Your task to perform on an android device: turn off data saver in the chrome app Image 0: 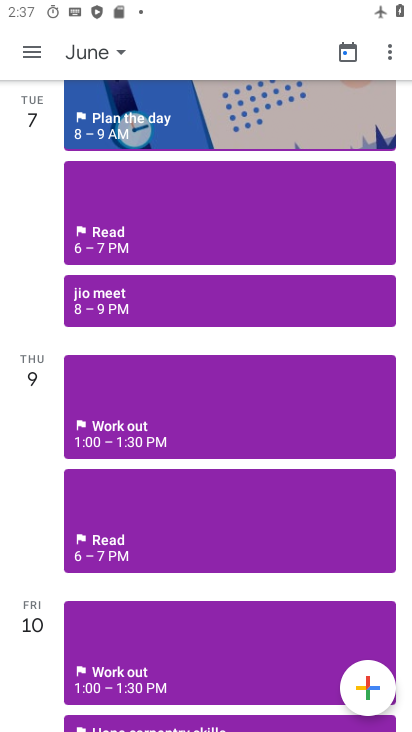
Step 0: press home button
Your task to perform on an android device: turn off data saver in the chrome app Image 1: 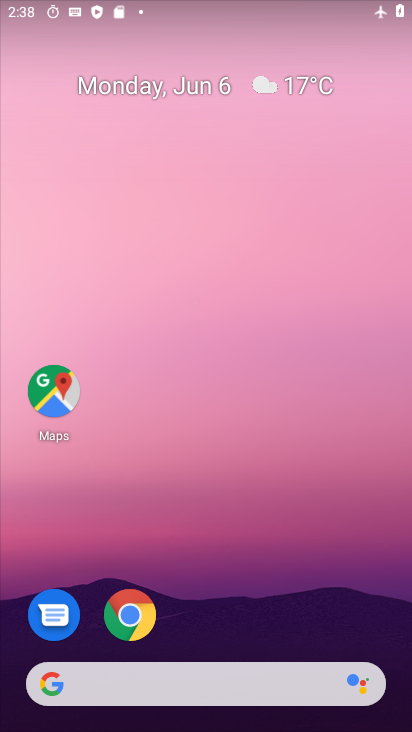
Step 1: drag from (188, 631) to (217, 142)
Your task to perform on an android device: turn off data saver in the chrome app Image 2: 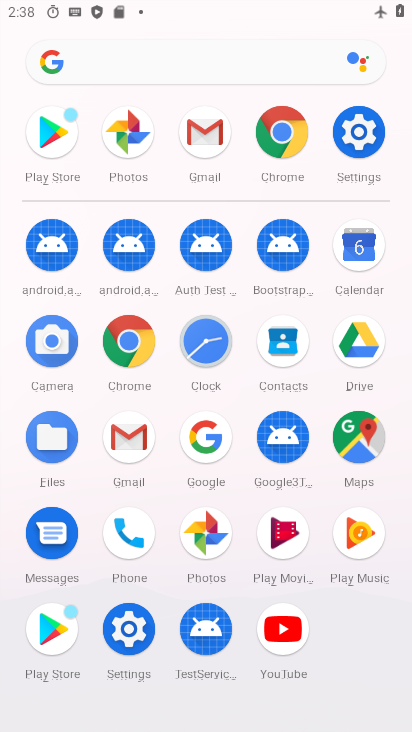
Step 2: click (123, 355)
Your task to perform on an android device: turn off data saver in the chrome app Image 3: 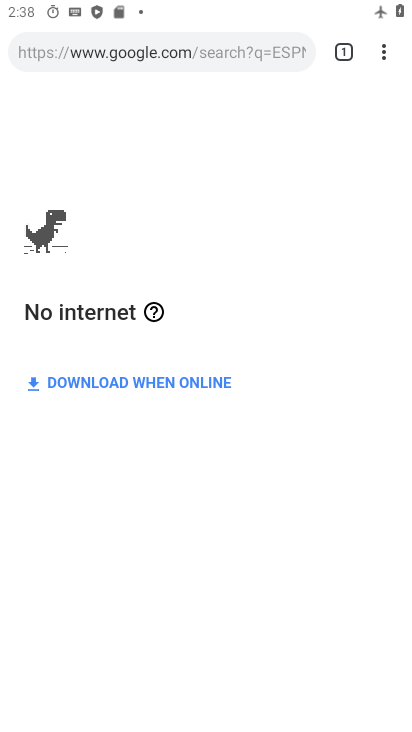
Step 3: click (383, 56)
Your task to perform on an android device: turn off data saver in the chrome app Image 4: 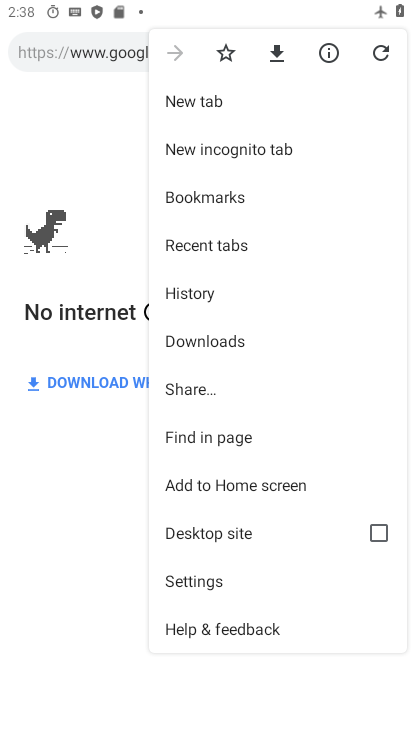
Step 4: click (209, 579)
Your task to perform on an android device: turn off data saver in the chrome app Image 5: 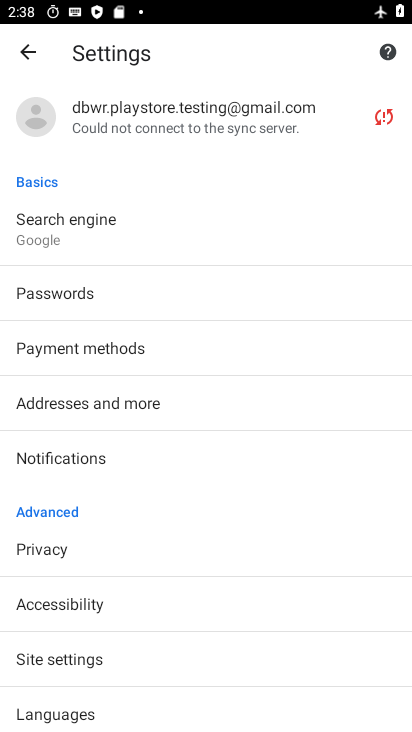
Step 5: drag from (121, 653) to (157, 405)
Your task to perform on an android device: turn off data saver in the chrome app Image 6: 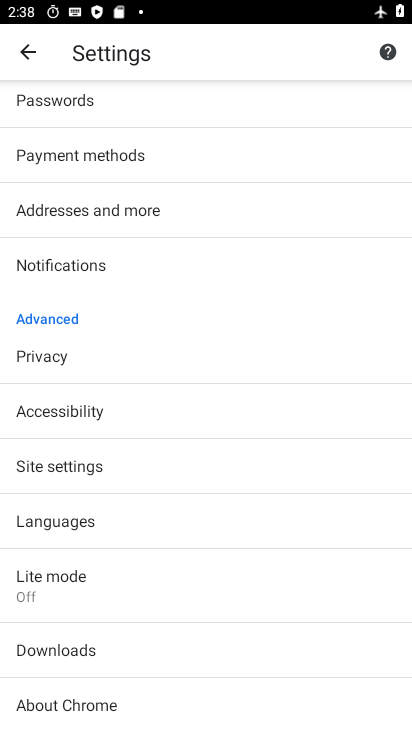
Step 6: click (82, 590)
Your task to perform on an android device: turn off data saver in the chrome app Image 7: 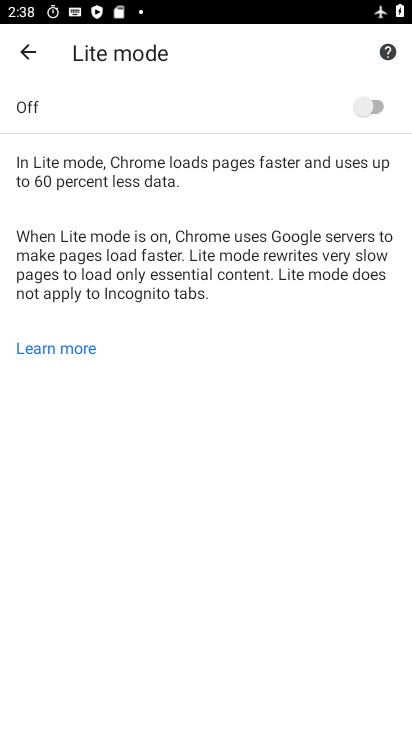
Step 7: task complete